Your task to perform on an android device: Open ESPN.com Image 0: 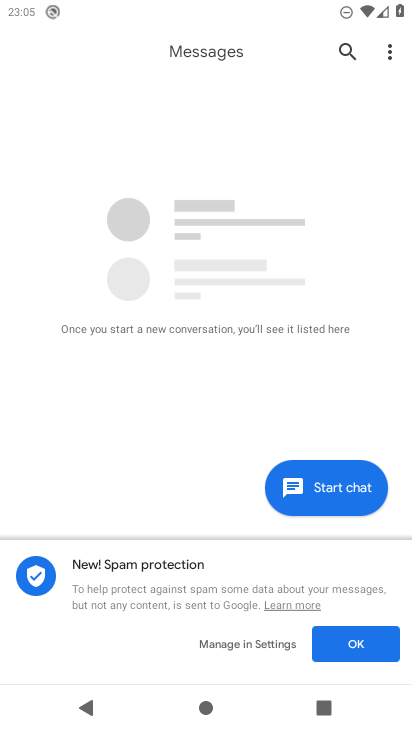
Step 0: press home button
Your task to perform on an android device: Open ESPN.com Image 1: 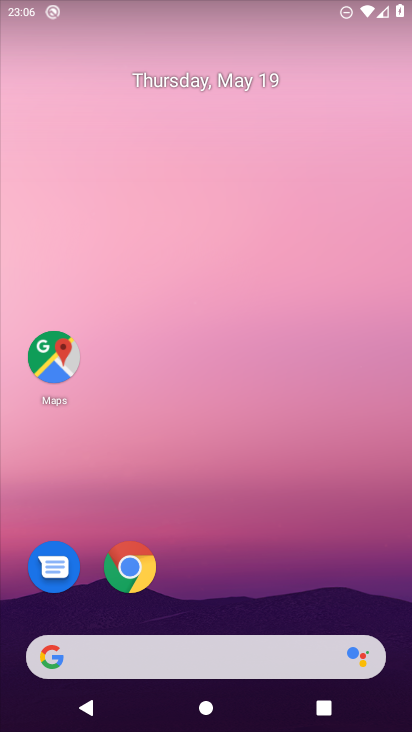
Step 1: click (126, 566)
Your task to perform on an android device: Open ESPN.com Image 2: 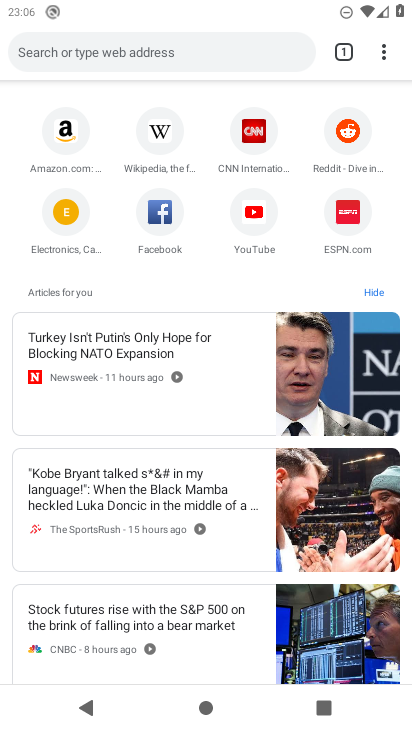
Step 2: click (351, 213)
Your task to perform on an android device: Open ESPN.com Image 3: 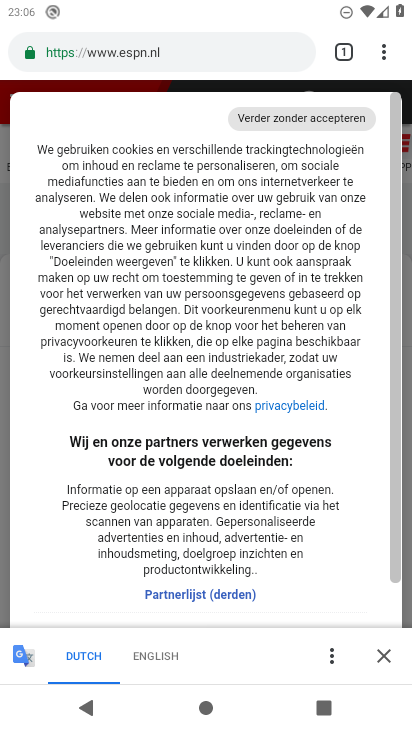
Step 3: drag from (245, 452) to (243, 160)
Your task to perform on an android device: Open ESPN.com Image 4: 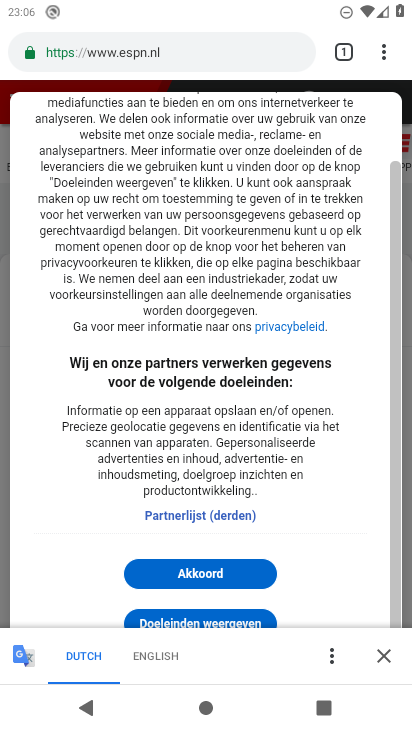
Step 4: click (203, 569)
Your task to perform on an android device: Open ESPN.com Image 5: 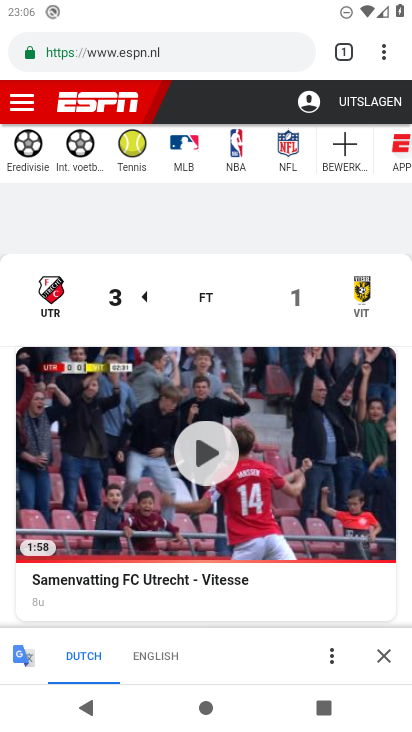
Step 5: task complete